Your task to perform on an android device: Open the calendar and show me this week's events? Image 0: 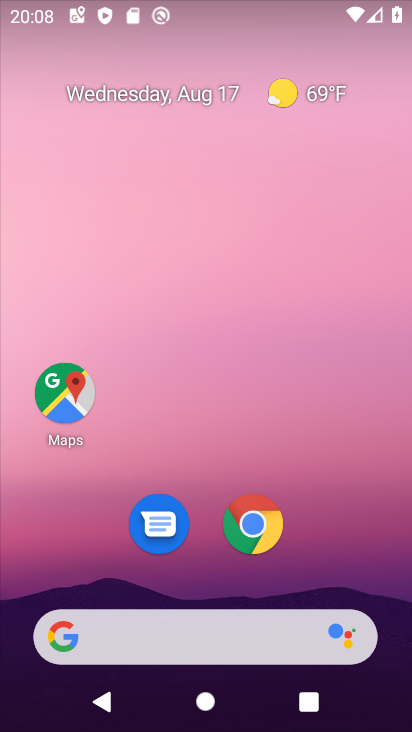
Step 0: drag from (331, 551) to (347, 43)
Your task to perform on an android device: Open the calendar and show me this week's events? Image 1: 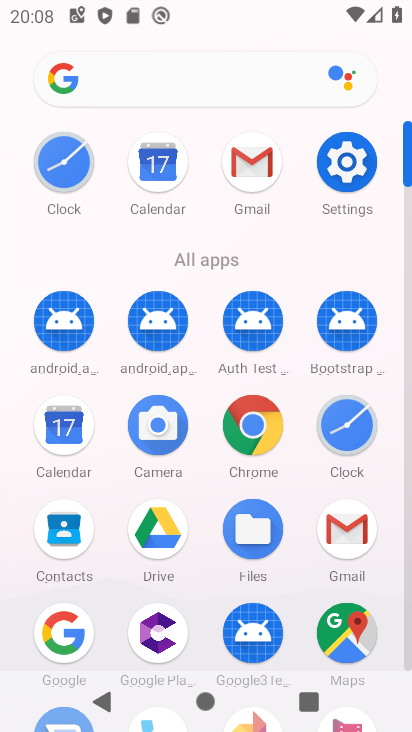
Step 1: click (162, 156)
Your task to perform on an android device: Open the calendar and show me this week's events? Image 2: 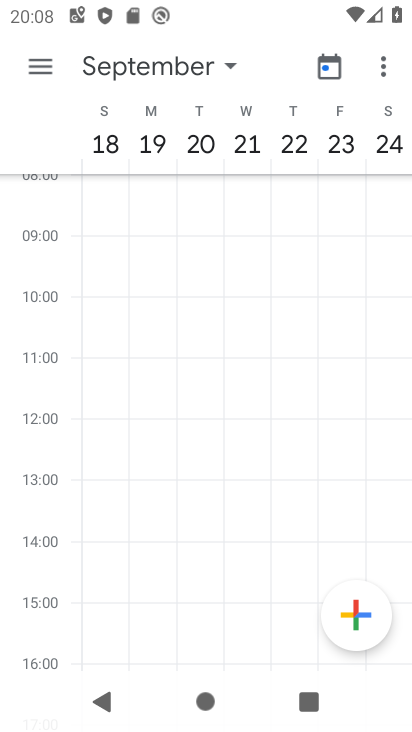
Step 2: task complete